Your task to perform on an android device: Look up the best rated coffee table on Ikea Image 0: 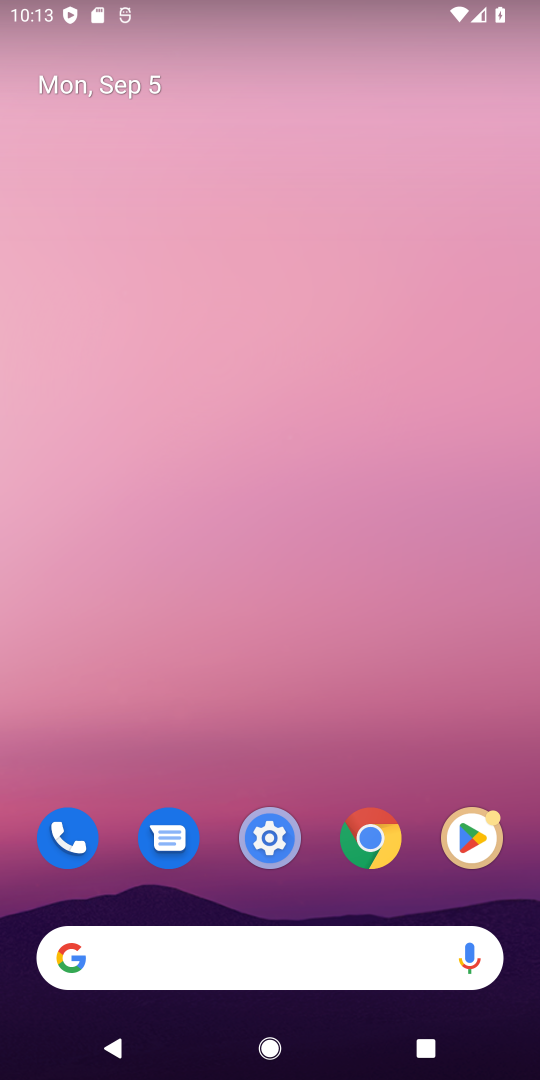
Step 0: click (121, 956)
Your task to perform on an android device: Look up the best rated coffee table on Ikea Image 1: 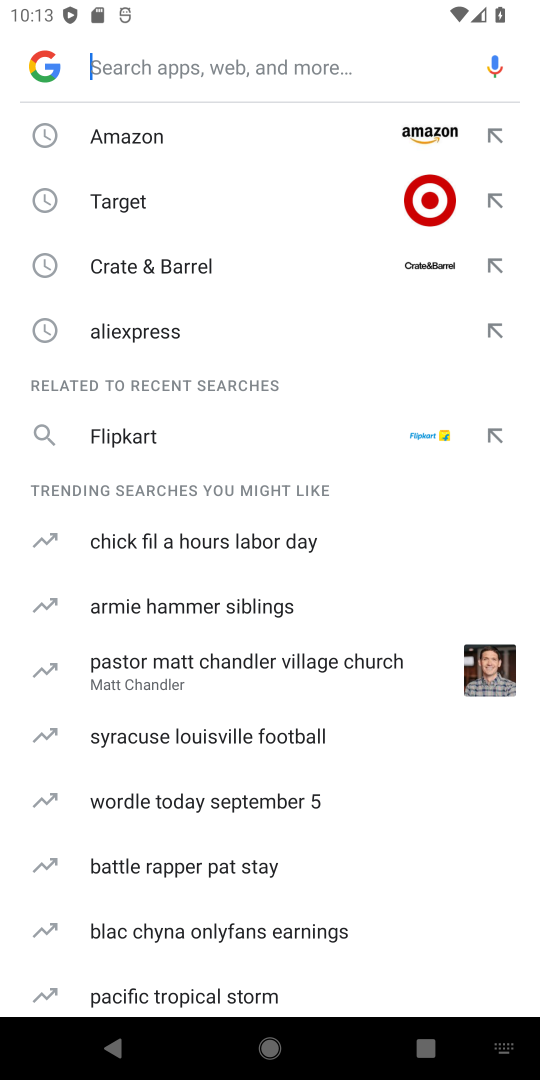
Step 1: type "Ikea"
Your task to perform on an android device: Look up the best rated coffee table on Ikea Image 2: 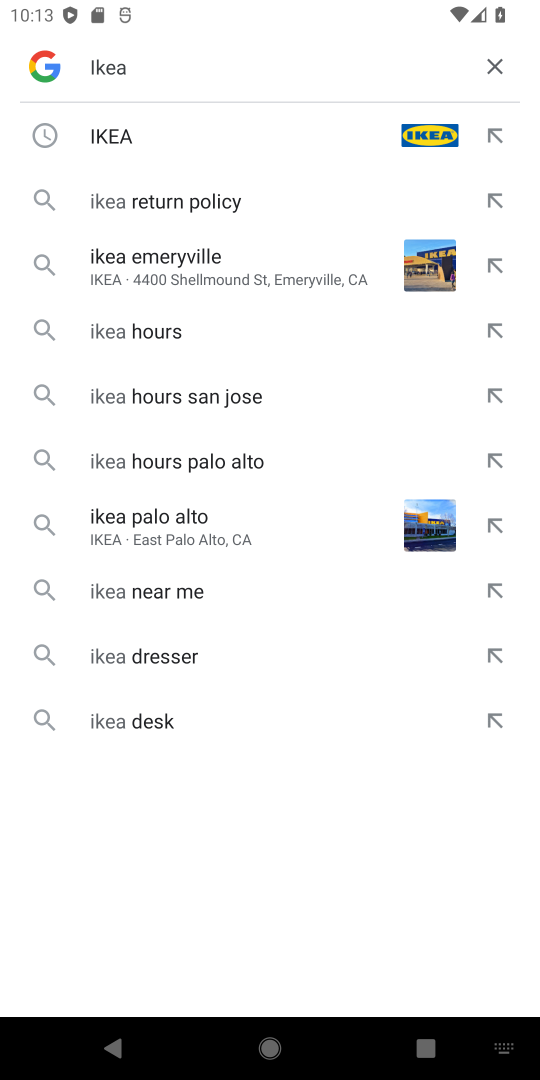
Step 2: click (120, 142)
Your task to perform on an android device: Look up the best rated coffee table on Ikea Image 3: 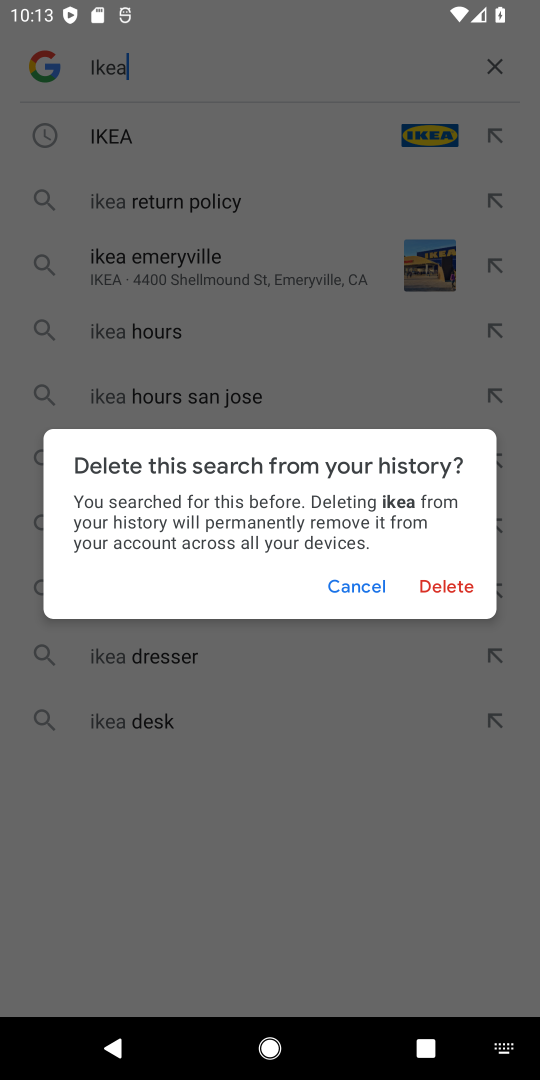
Step 3: click (363, 584)
Your task to perform on an android device: Look up the best rated coffee table on Ikea Image 4: 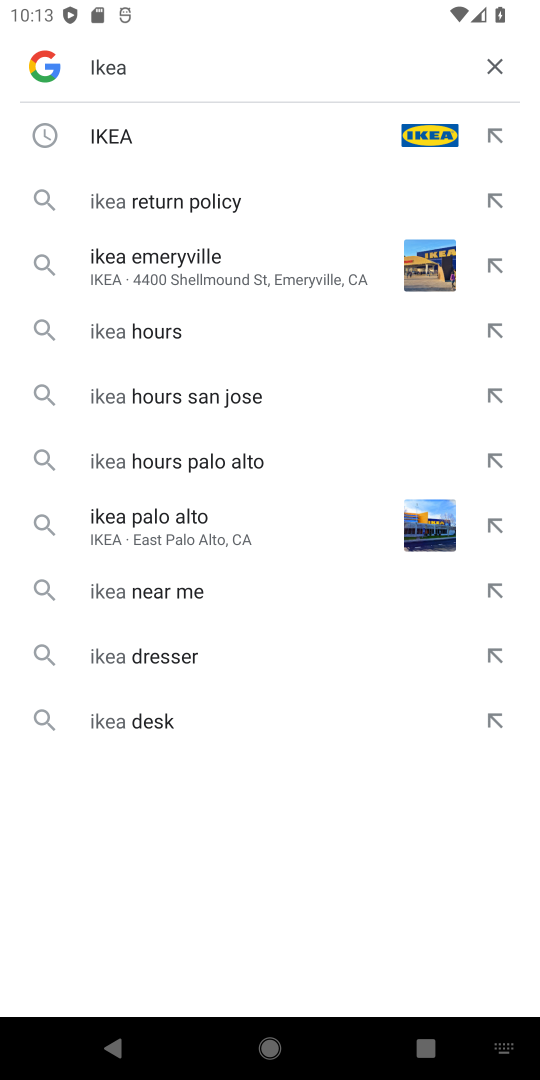
Step 4: click (124, 142)
Your task to perform on an android device: Look up the best rated coffee table on Ikea Image 5: 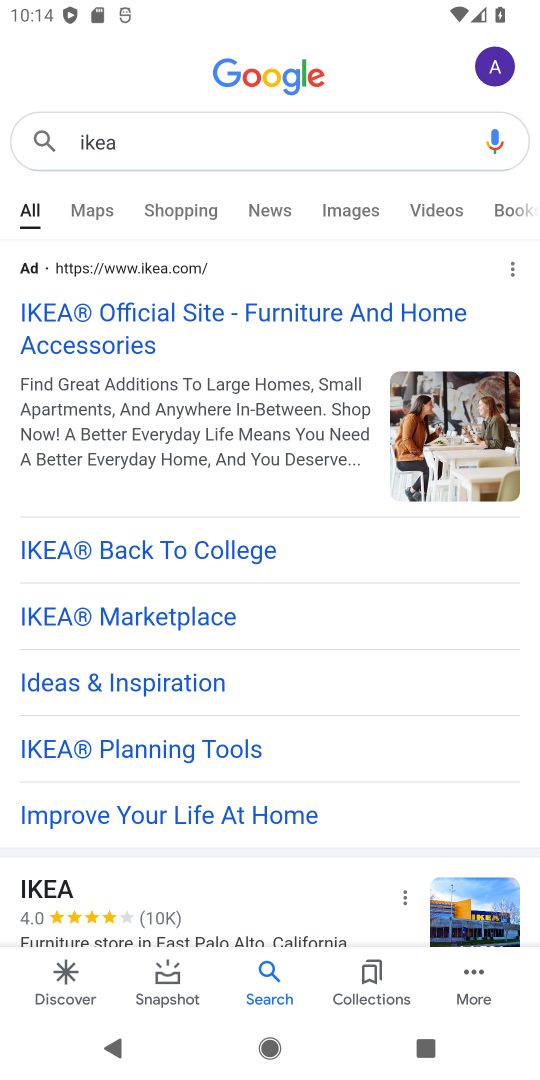
Step 5: drag from (151, 512) to (203, 196)
Your task to perform on an android device: Look up the best rated coffee table on Ikea Image 6: 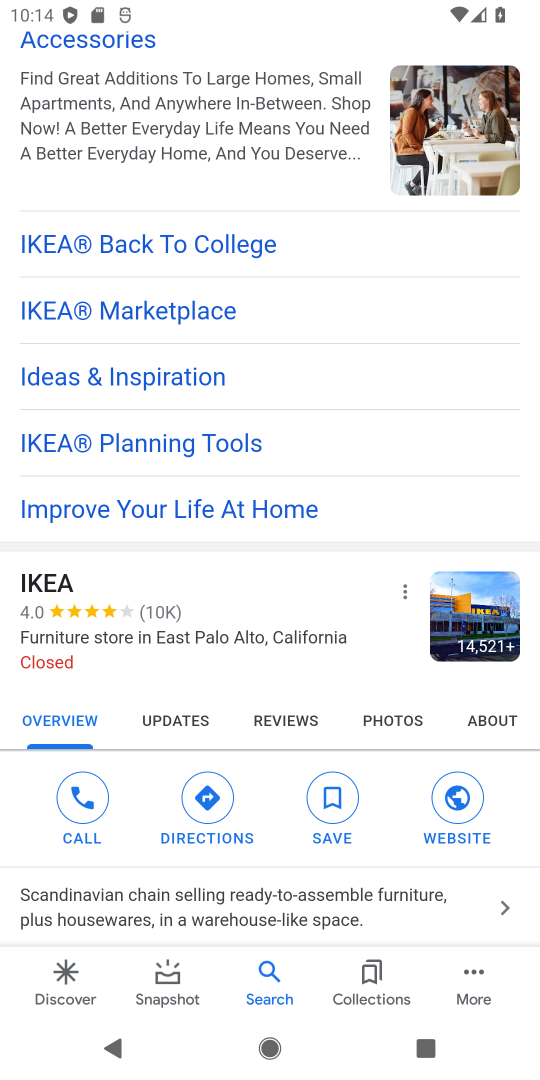
Step 6: drag from (252, 738) to (326, 299)
Your task to perform on an android device: Look up the best rated coffee table on Ikea Image 7: 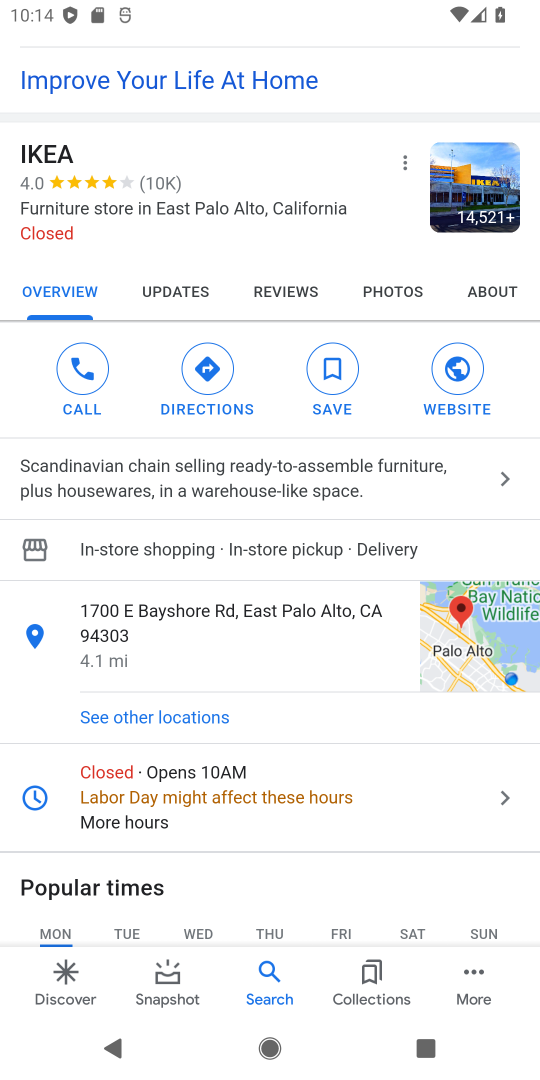
Step 7: drag from (268, 788) to (276, 256)
Your task to perform on an android device: Look up the best rated coffee table on Ikea Image 8: 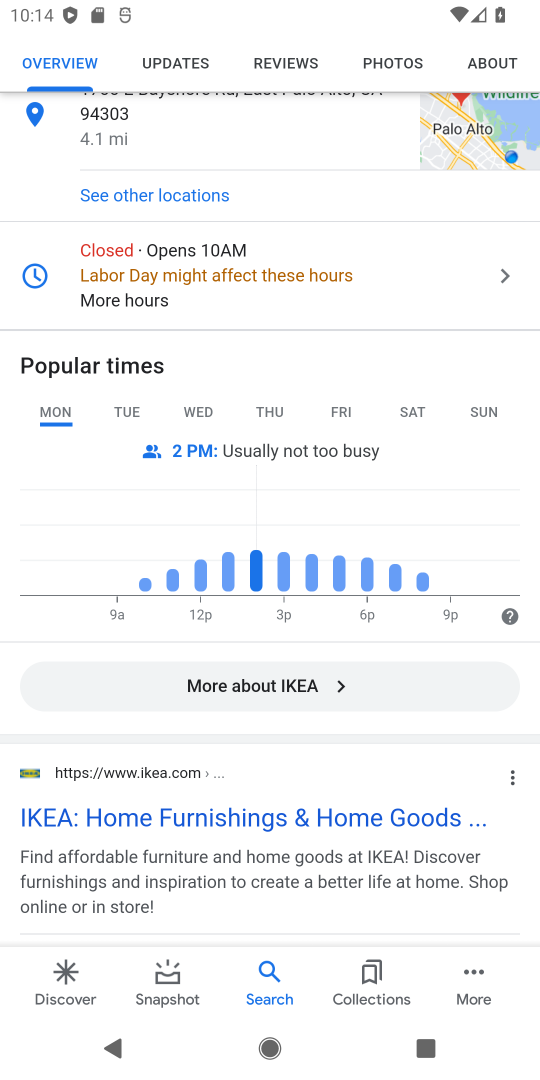
Step 8: drag from (246, 677) to (285, 246)
Your task to perform on an android device: Look up the best rated coffee table on Ikea Image 9: 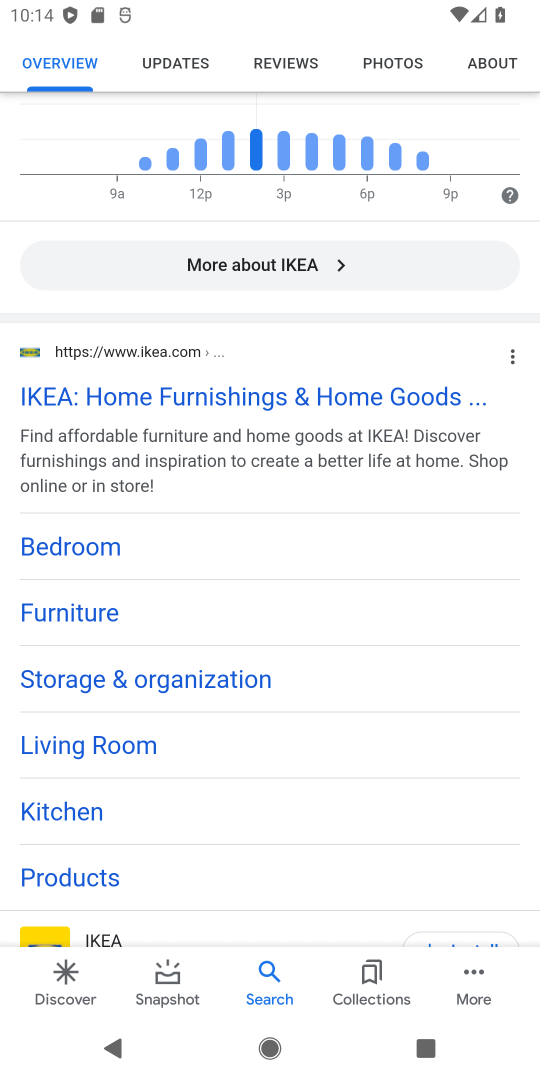
Step 9: click (184, 386)
Your task to perform on an android device: Look up the best rated coffee table on Ikea Image 10: 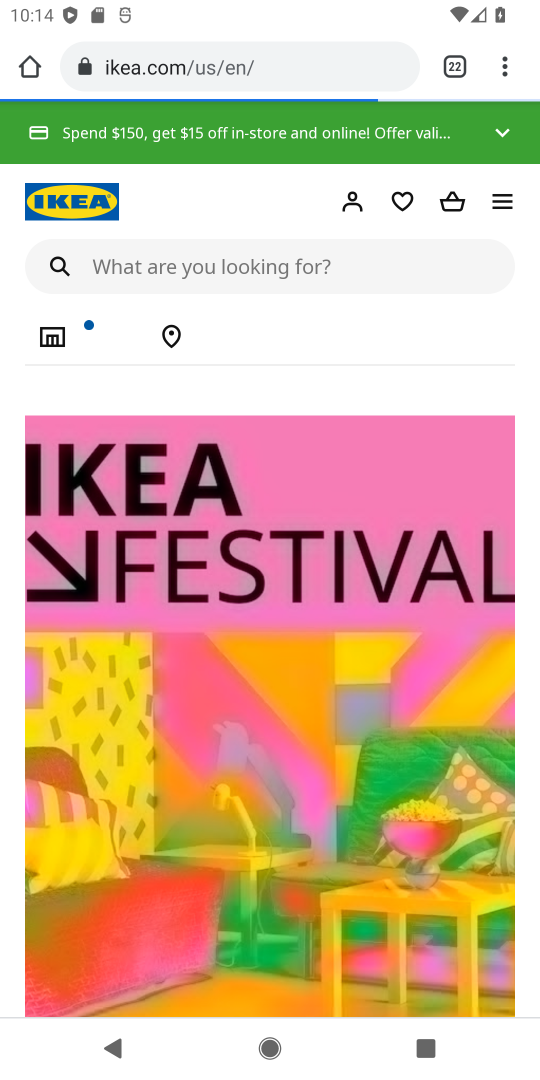
Step 10: click (157, 276)
Your task to perform on an android device: Look up the best rated coffee table on Ikea Image 11: 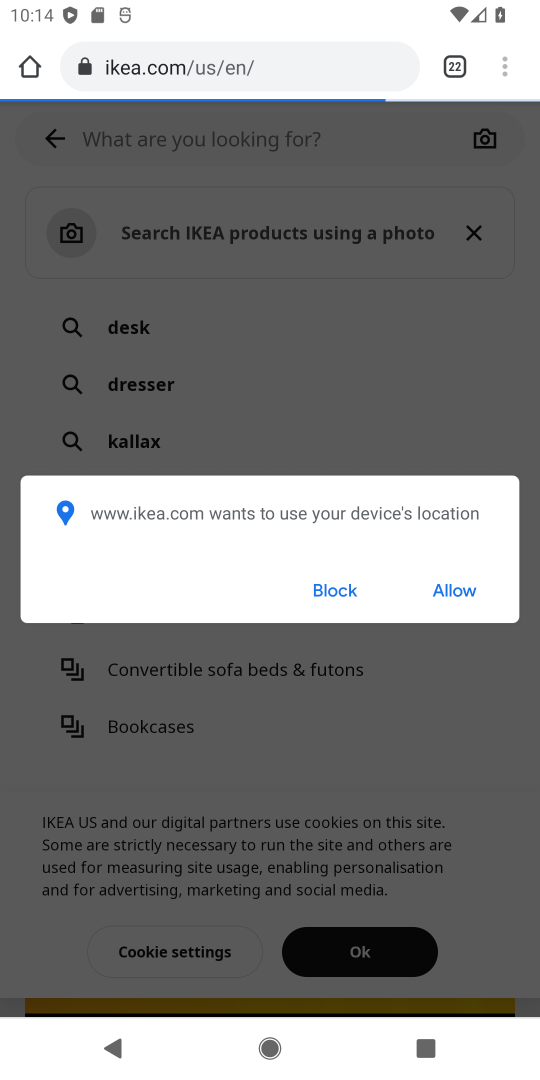
Step 11: type " coffee table"
Your task to perform on an android device: Look up the best rated coffee table on Ikea Image 12: 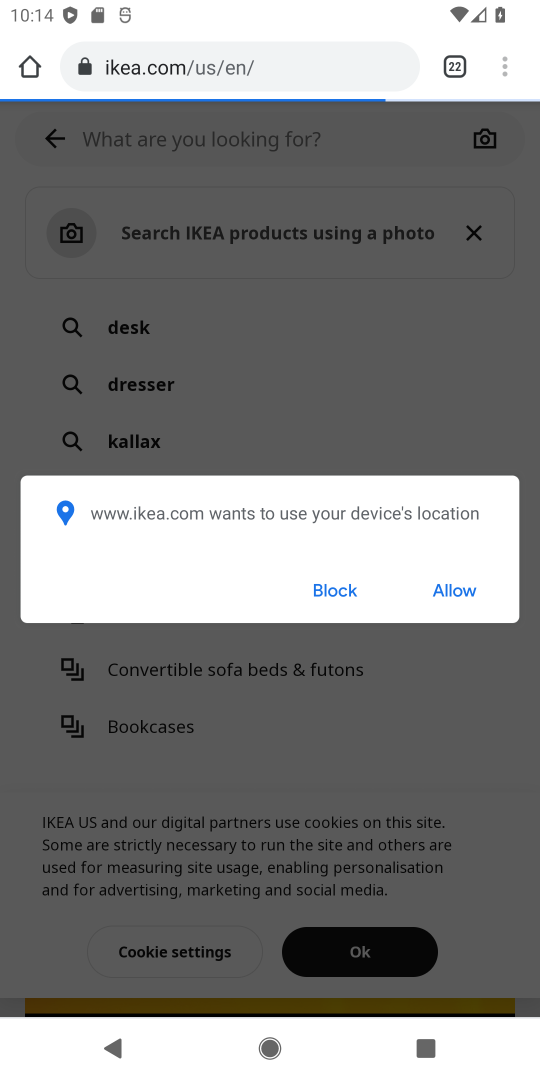
Step 12: click (452, 593)
Your task to perform on an android device: Look up the best rated coffee table on Ikea Image 13: 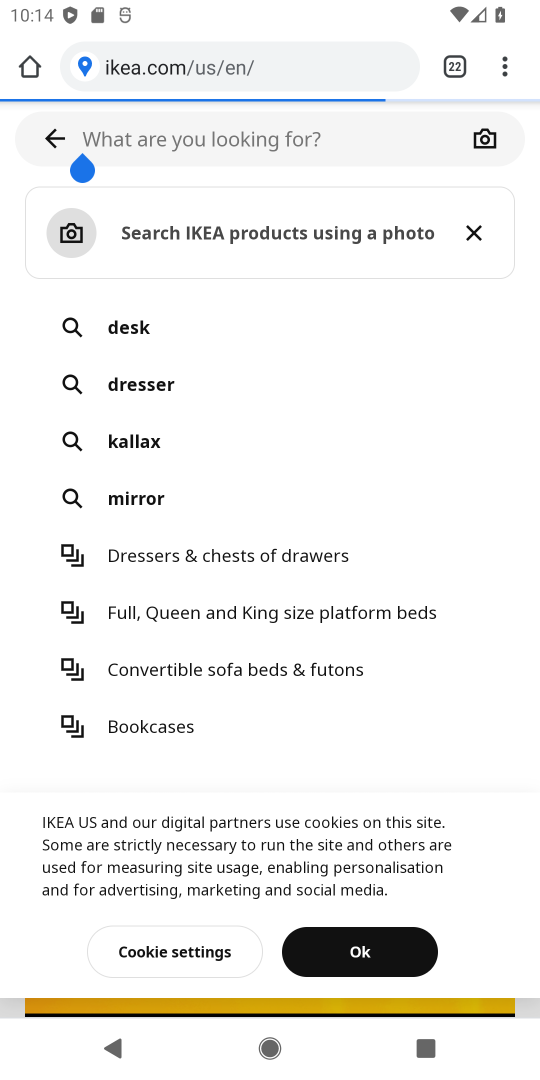
Step 13: click (141, 139)
Your task to perform on an android device: Look up the best rated coffee table on Ikea Image 14: 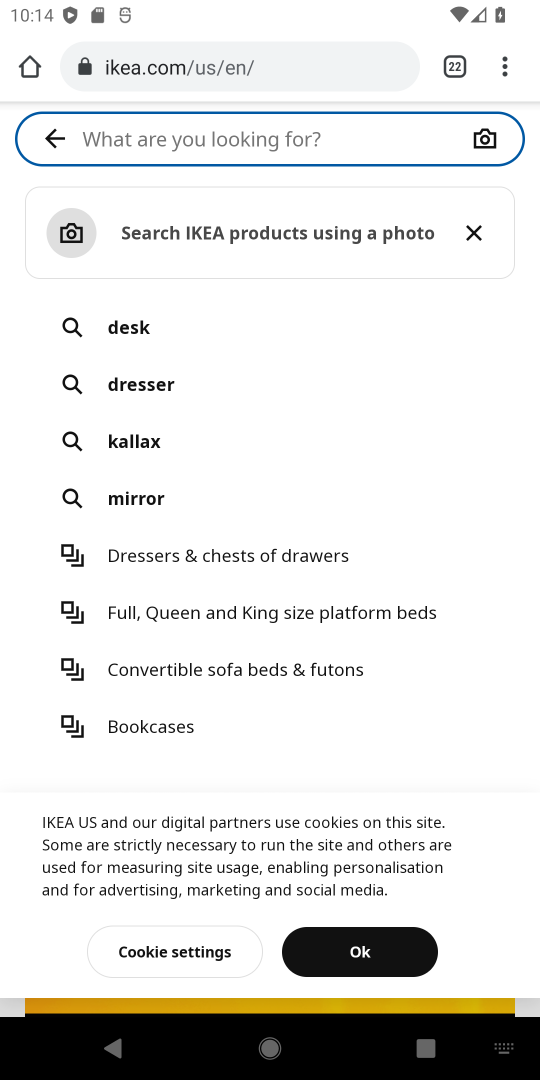
Step 14: type " coffee table"
Your task to perform on an android device: Look up the best rated coffee table on Ikea Image 15: 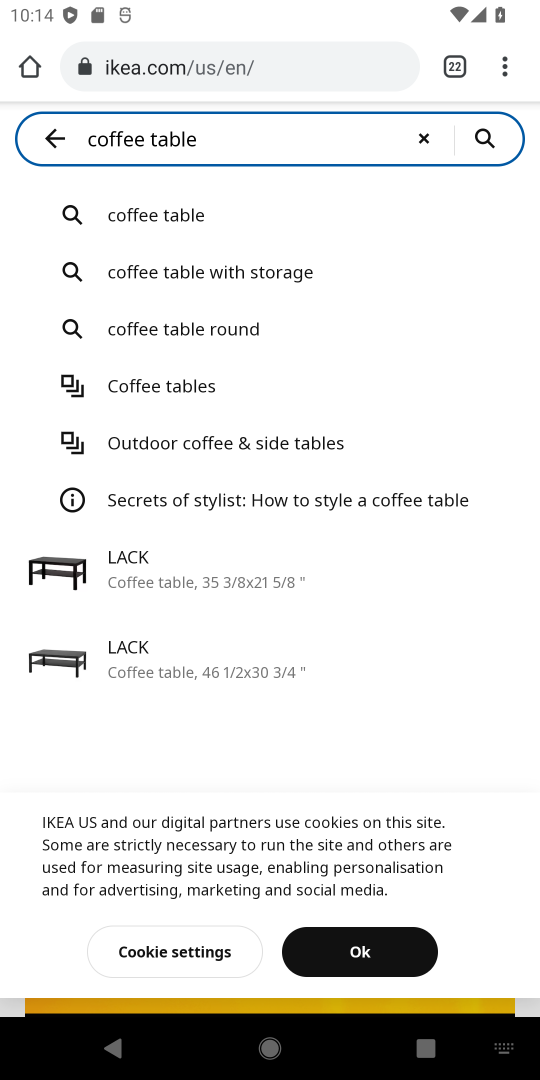
Step 15: click (200, 201)
Your task to perform on an android device: Look up the best rated coffee table on Ikea Image 16: 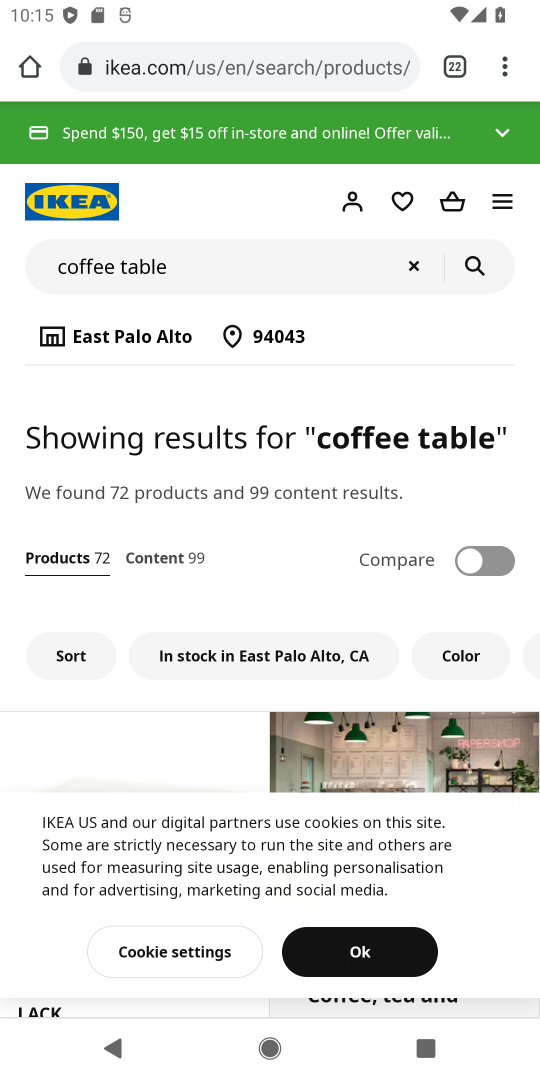
Step 16: task complete